Your task to perform on an android device: Go to display settings Image 0: 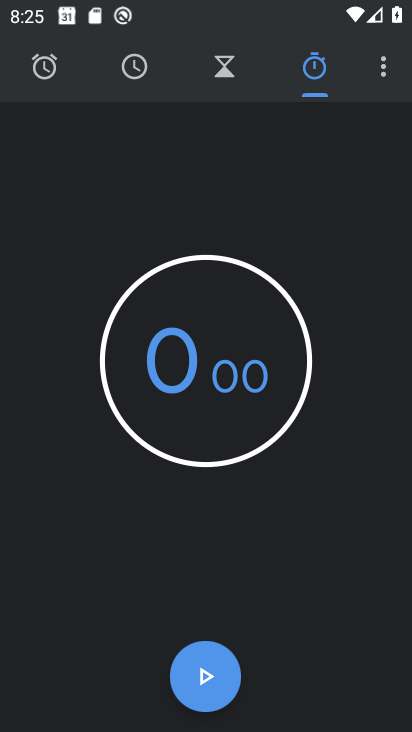
Step 0: press home button
Your task to perform on an android device: Go to display settings Image 1: 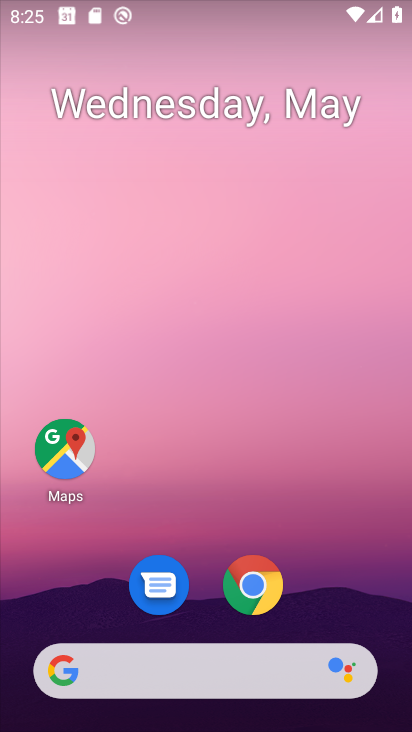
Step 1: drag from (327, 588) to (322, 50)
Your task to perform on an android device: Go to display settings Image 2: 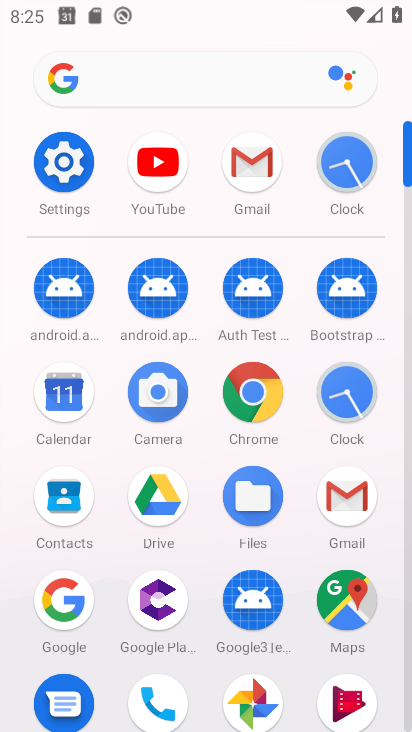
Step 2: click (66, 146)
Your task to perform on an android device: Go to display settings Image 3: 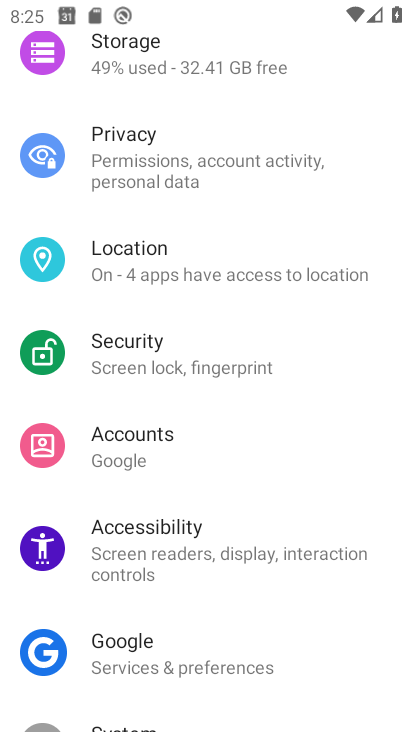
Step 3: drag from (237, 200) to (247, 452)
Your task to perform on an android device: Go to display settings Image 4: 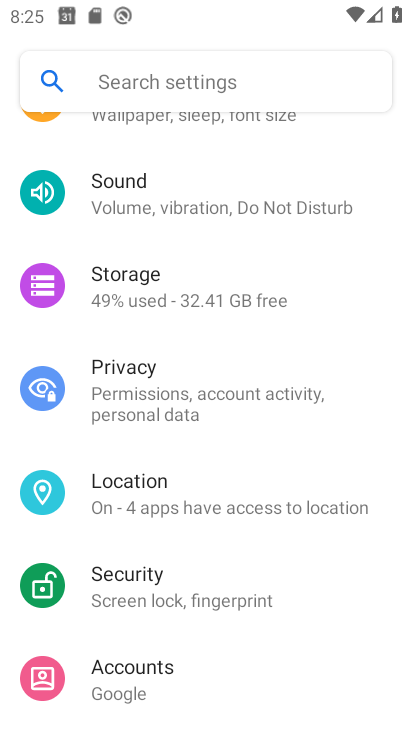
Step 4: drag from (233, 286) to (262, 632)
Your task to perform on an android device: Go to display settings Image 5: 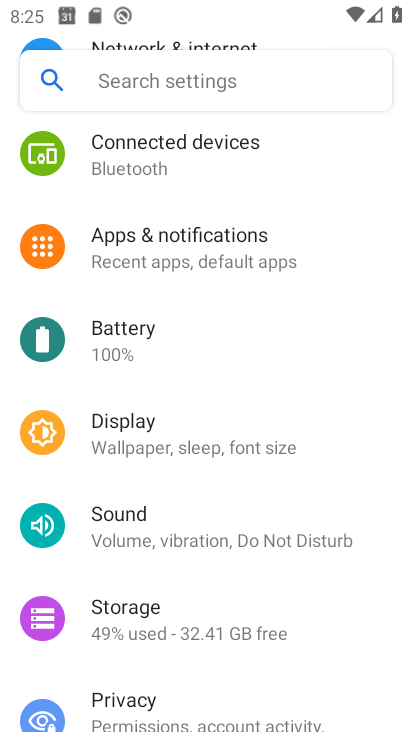
Step 5: click (216, 446)
Your task to perform on an android device: Go to display settings Image 6: 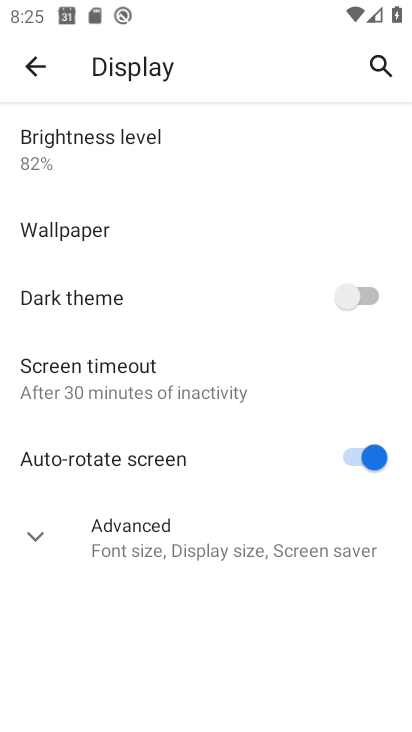
Step 6: task complete